Your task to perform on an android device: Check the weather Image 0: 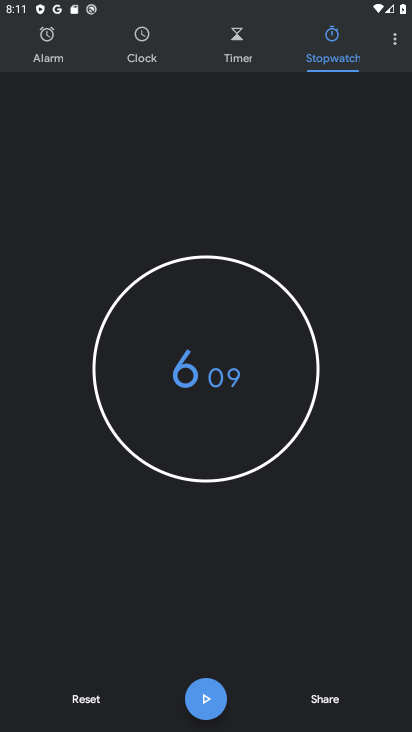
Step 0: press home button
Your task to perform on an android device: Check the weather Image 1: 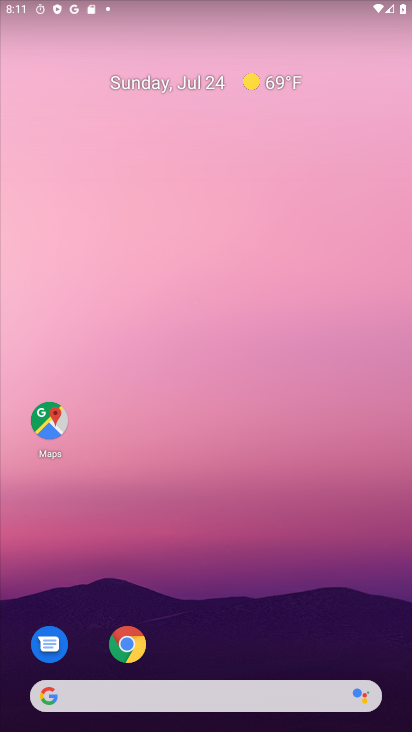
Step 1: drag from (162, 661) to (235, 116)
Your task to perform on an android device: Check the weather Image 2: 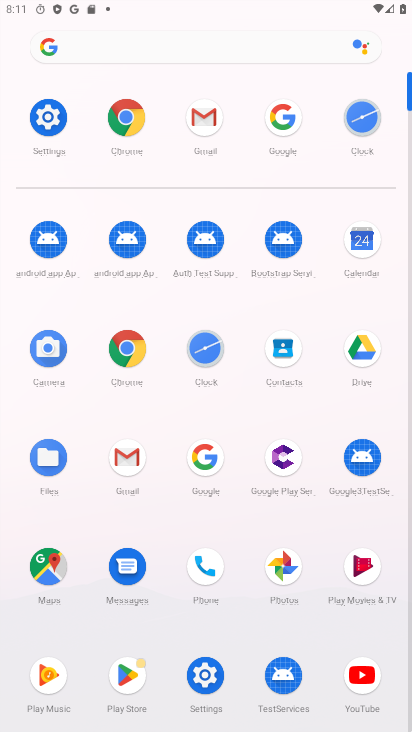
Step 2: click (207, 464)
Your task to perform on an android device: Check the weather Image 3: 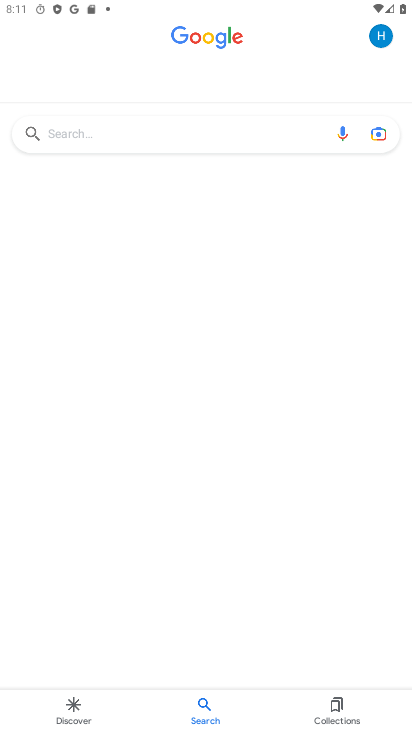
Step 3: click (52, 115)
Your task to perform on an android device: Check the weather Image 4: 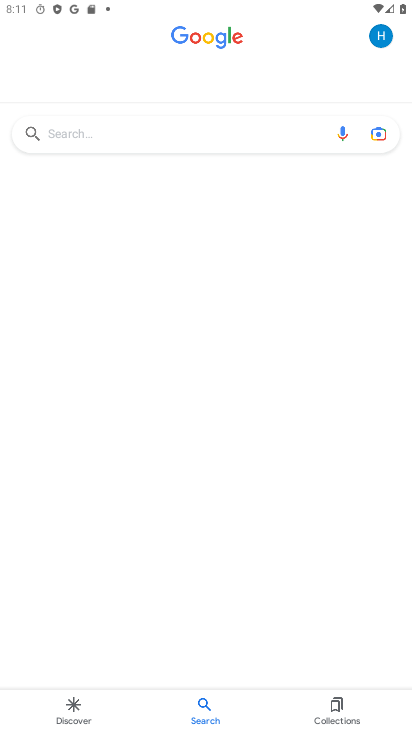
Step 4: click (55, 131)
Your task to perform on an android device: Check the weather Image 5: 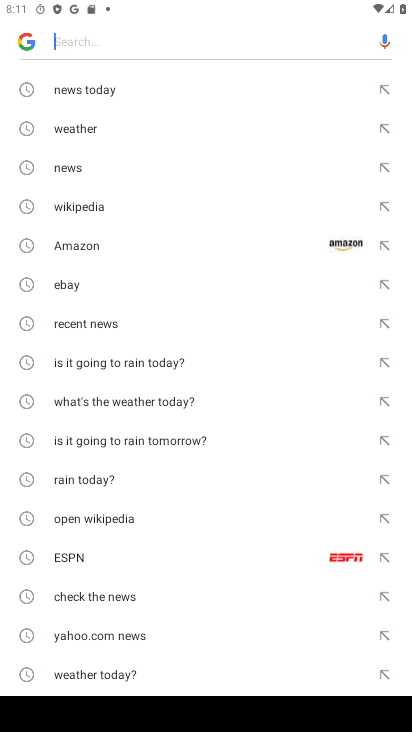
Step 5: click (64, 123)
Your task to perform on an android device: Check the weather Image 6: 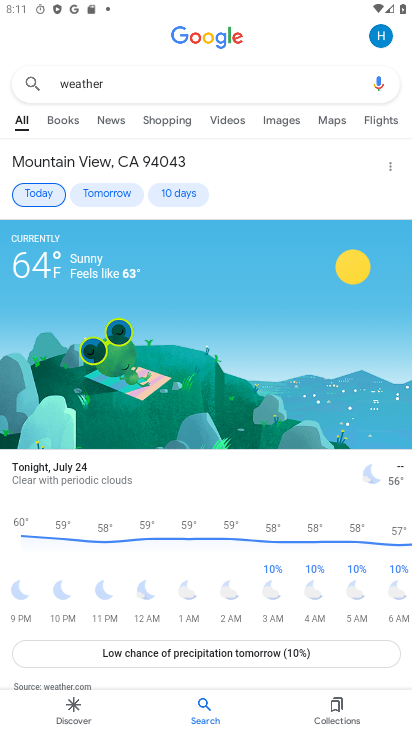
Step 6: task complete